Your task to perform on an android device: Open Youtube and go to the subscriptions tab Image 0: 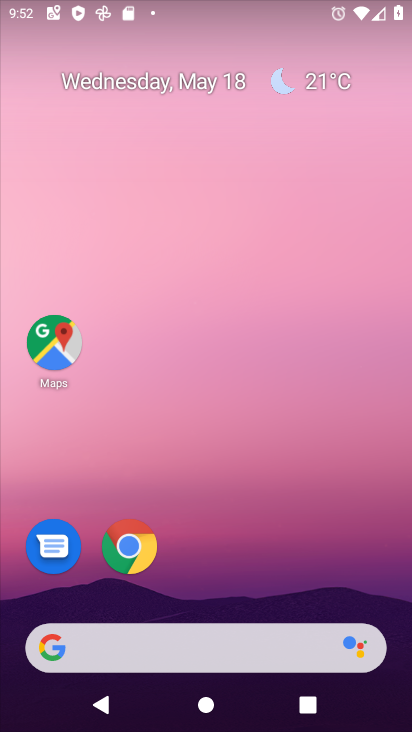
Step 0: drag from (398, 673) to (306, 41)
Your task to perform on an android device: Open Youtube and go to the subscriptions tab Image 1: 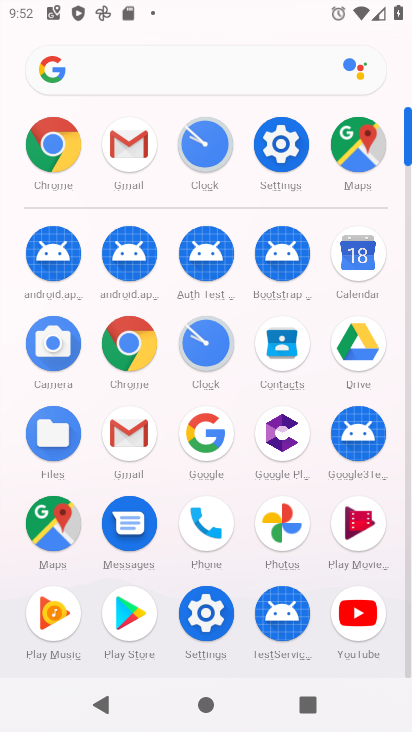
Step 1: click (361, 626)
Your task to perform on an android device: Open Youtube and go to the subscriptions tab Image 2: 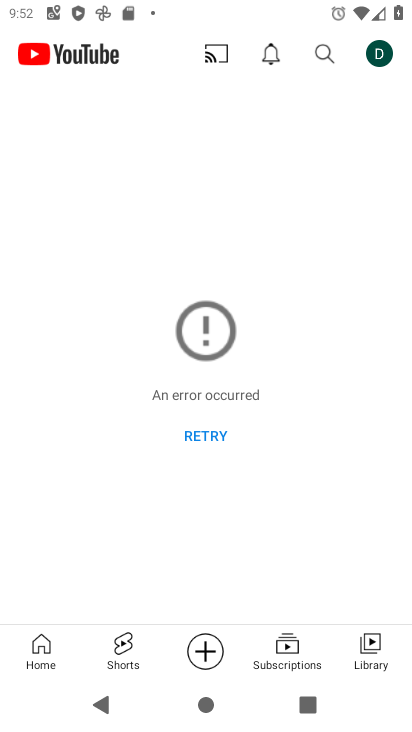
Step 2: click (299, 651)
Your task to perform on an android device: Open Youtube and go to the subscriptions tab Image 3: 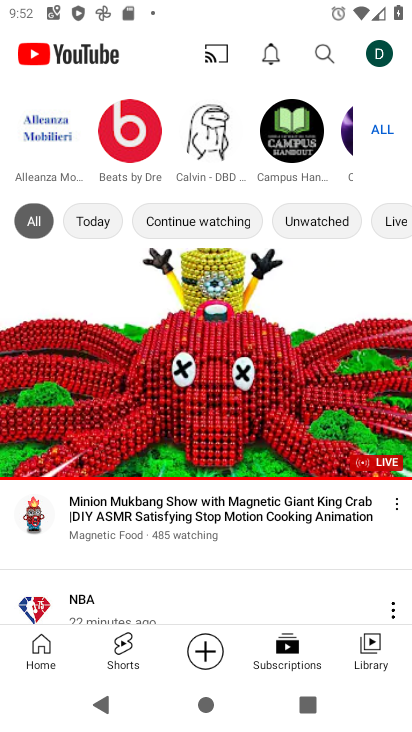
Step 3: task complete